Your task to perform on an android device: What's the news this week? Image 0: 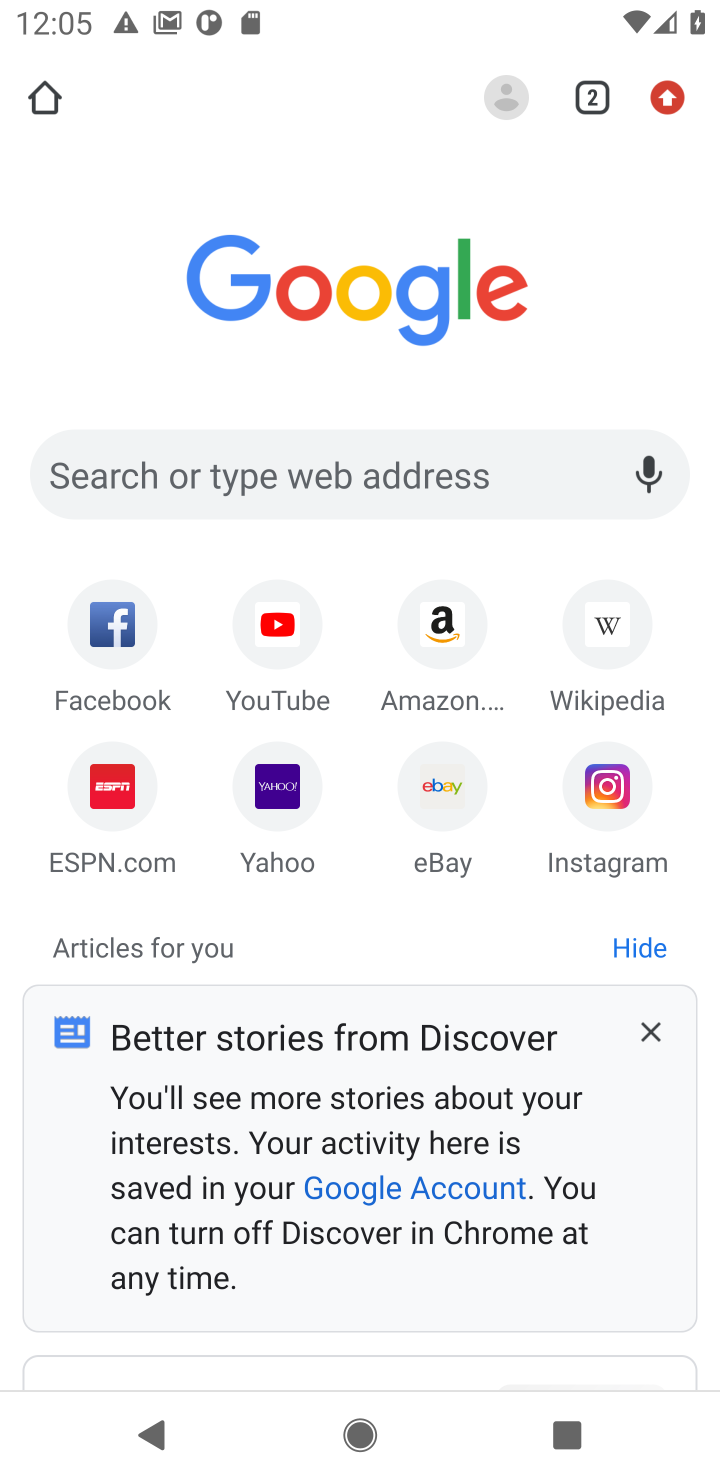
Step 0: click (490, 491)
Your task to perform on an android device: What's the news this week? Image 1: 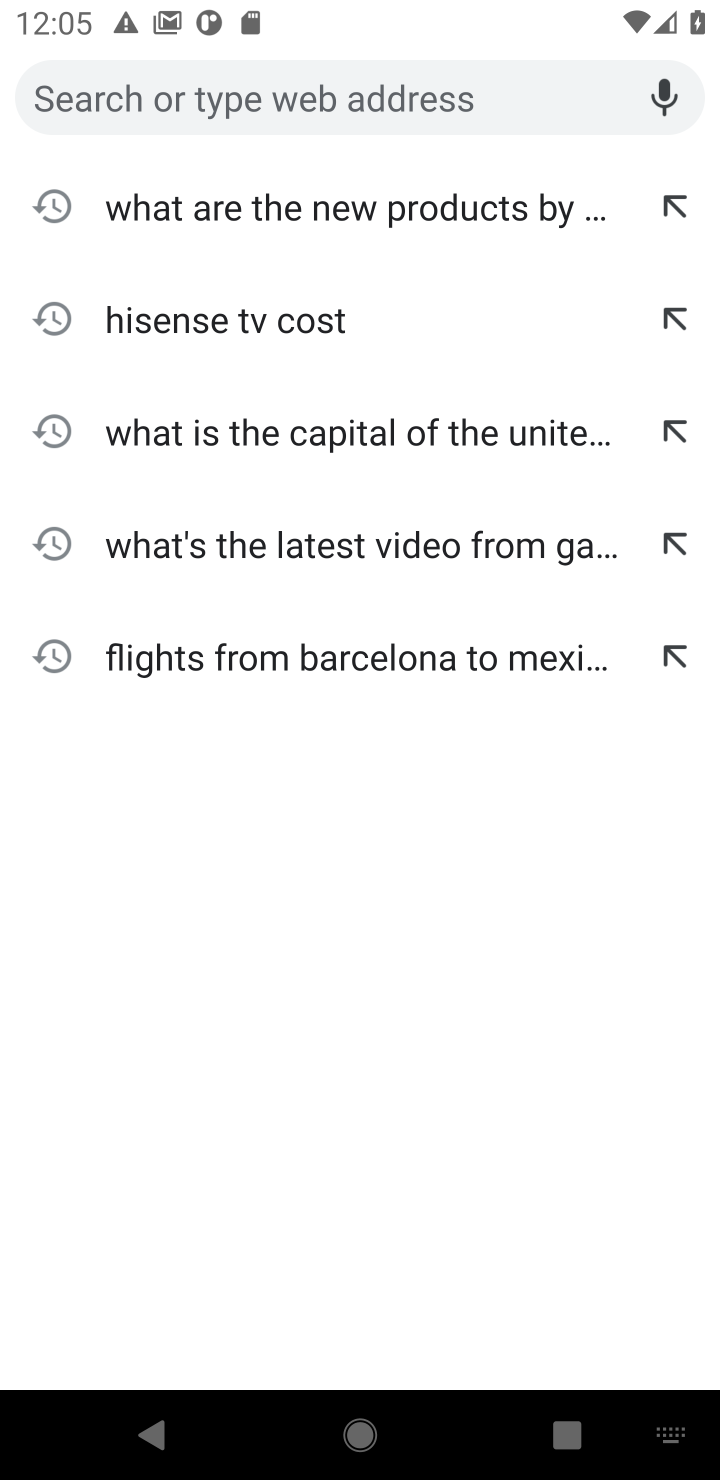
Step 1: type "news this week"
Your task to perform on an android device: What's the news this week? Image 2: 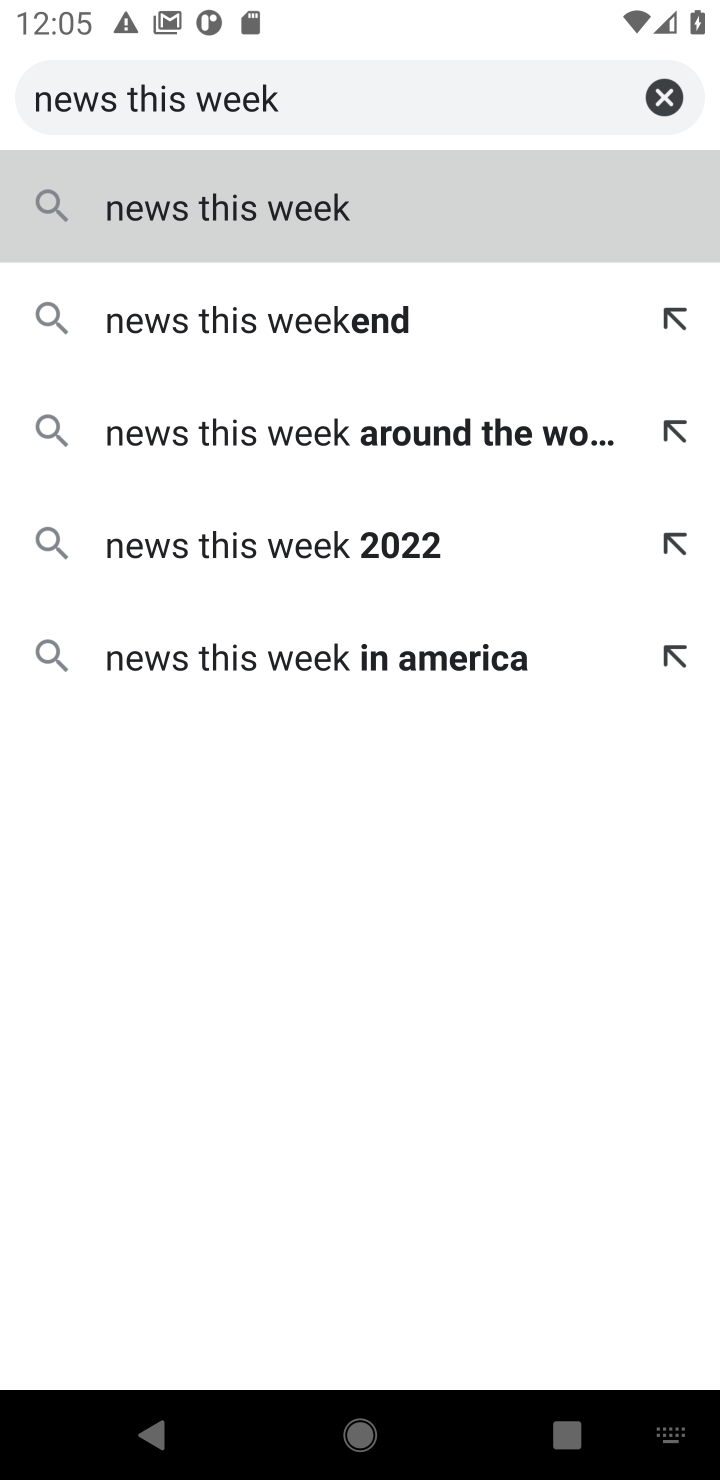
Step 2: click (438, 212)
Your task to perform on an android device: What's the news this week? Image 3: 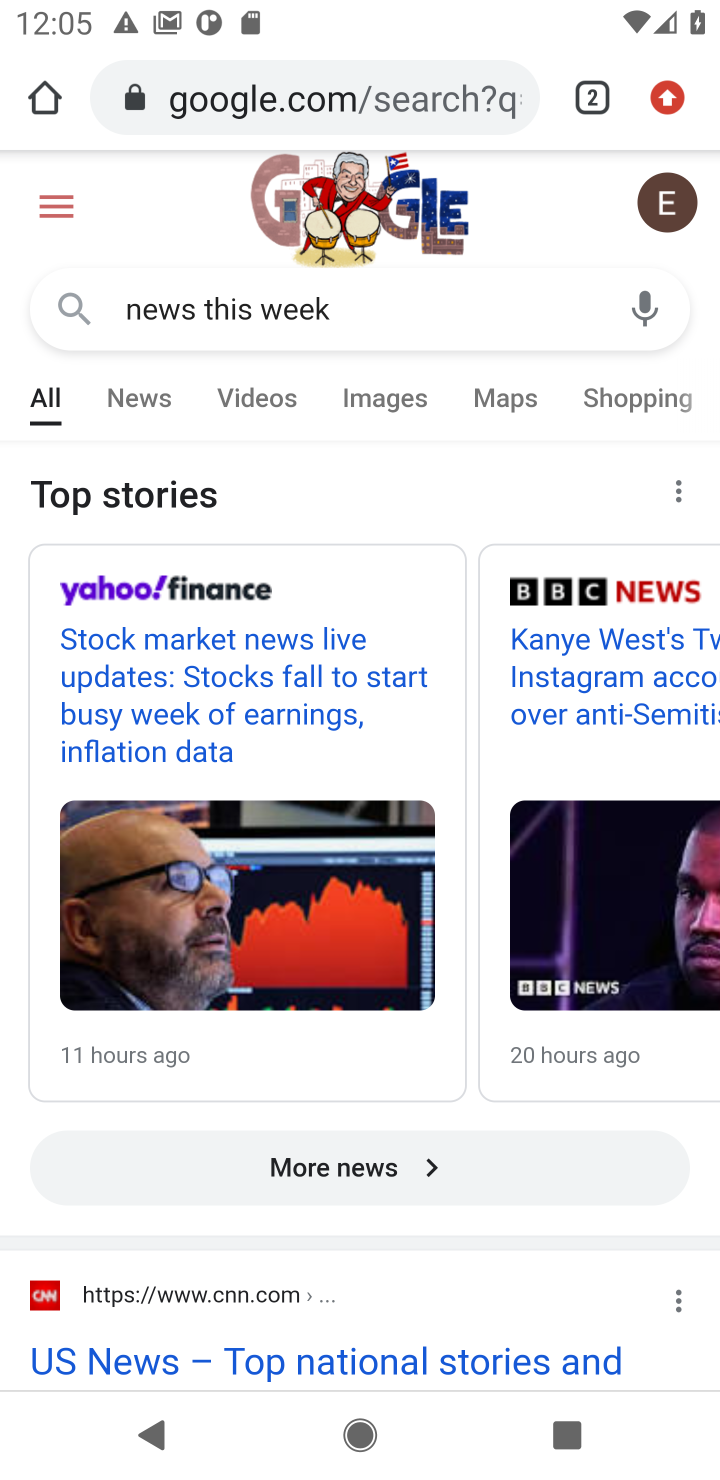
Step 3: click (168, 398)
Your task to perform on an android device: What's the news this week? Image 4: 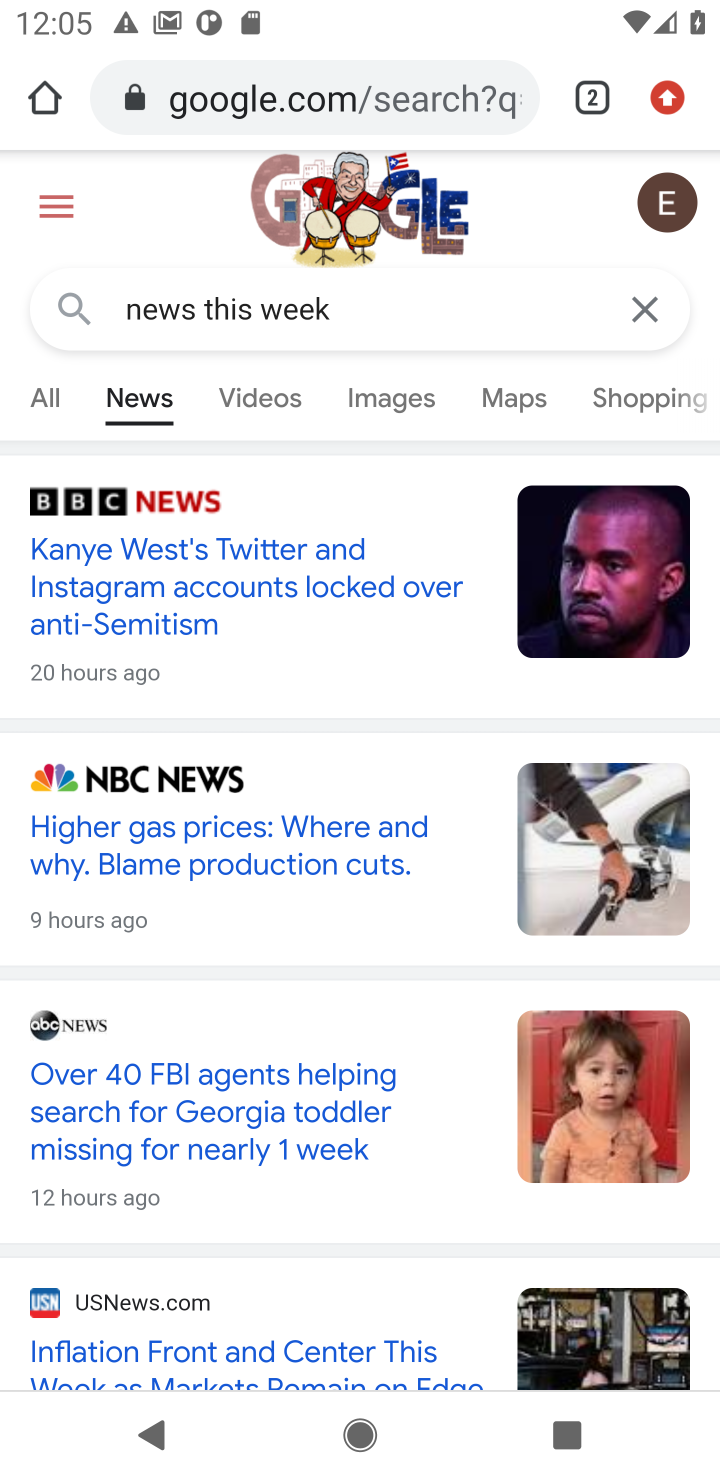
Step 4: task complete